Your task to perform on an android device: all mails in gmail Image 0: 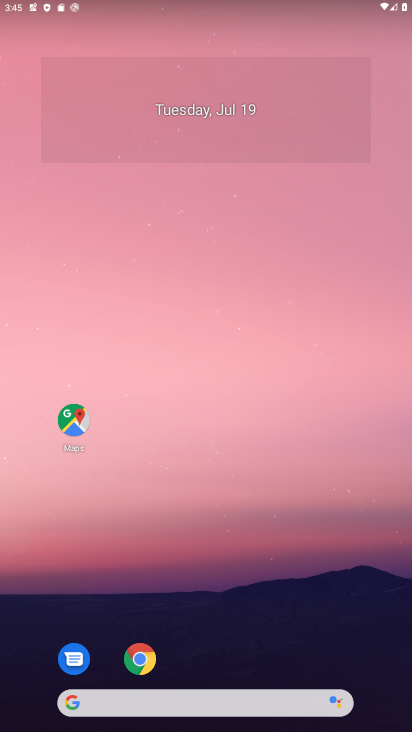
Step 0: drag from (197, 530) to (103, 69)
Your task to perform on an android device: all mails in gmail Image 1: 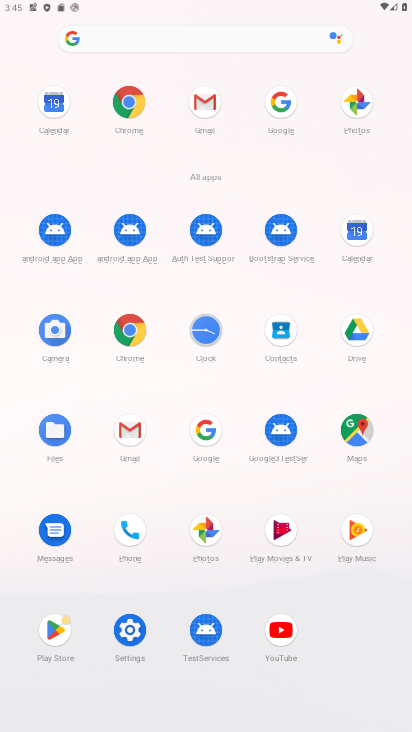
Step 1: click (204, 115)
Your task to perform on an android device: all mails in gmail Image 2: 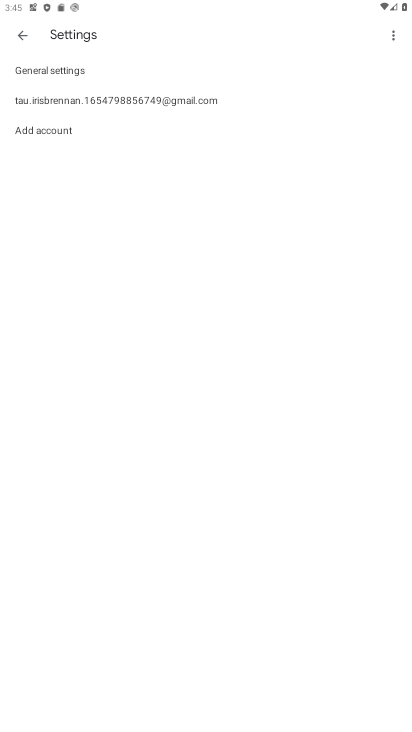
Step 2: click (24, 109)
Your task to perform on an android device: all mails in gmail Image 3: 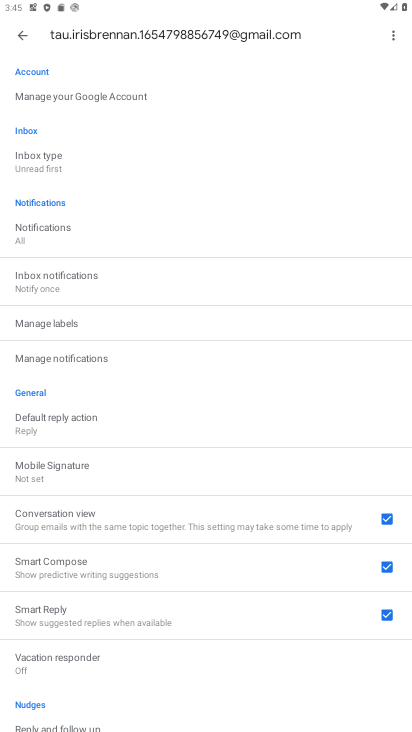
Step 3: click (10, 39)
Your task to perform on an android device: all mails in gmail Image 4: 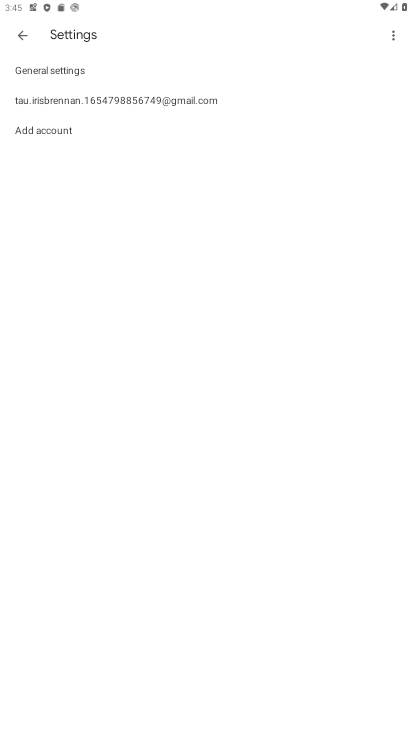
Step 4: click (23, 34)
Your task to perform on an android device: all mails in gmail Image 5: 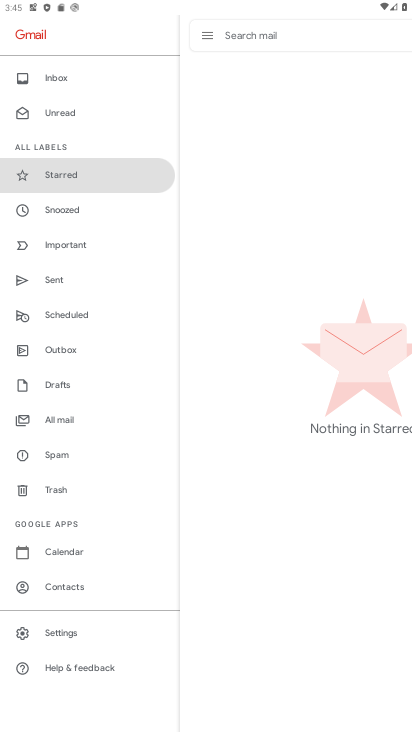
Step 5: click (56, 423)
Your task to perform on an android device: all mails in gmail Image 6: 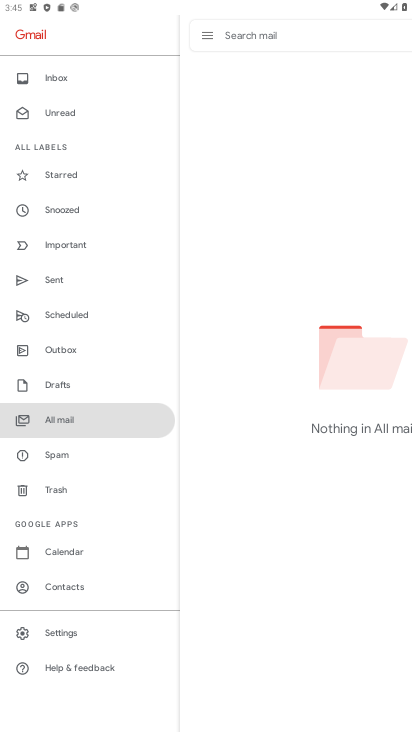
Step 6: task complete